Your task to perform on an android device: Go to Reddit.com Image 0: 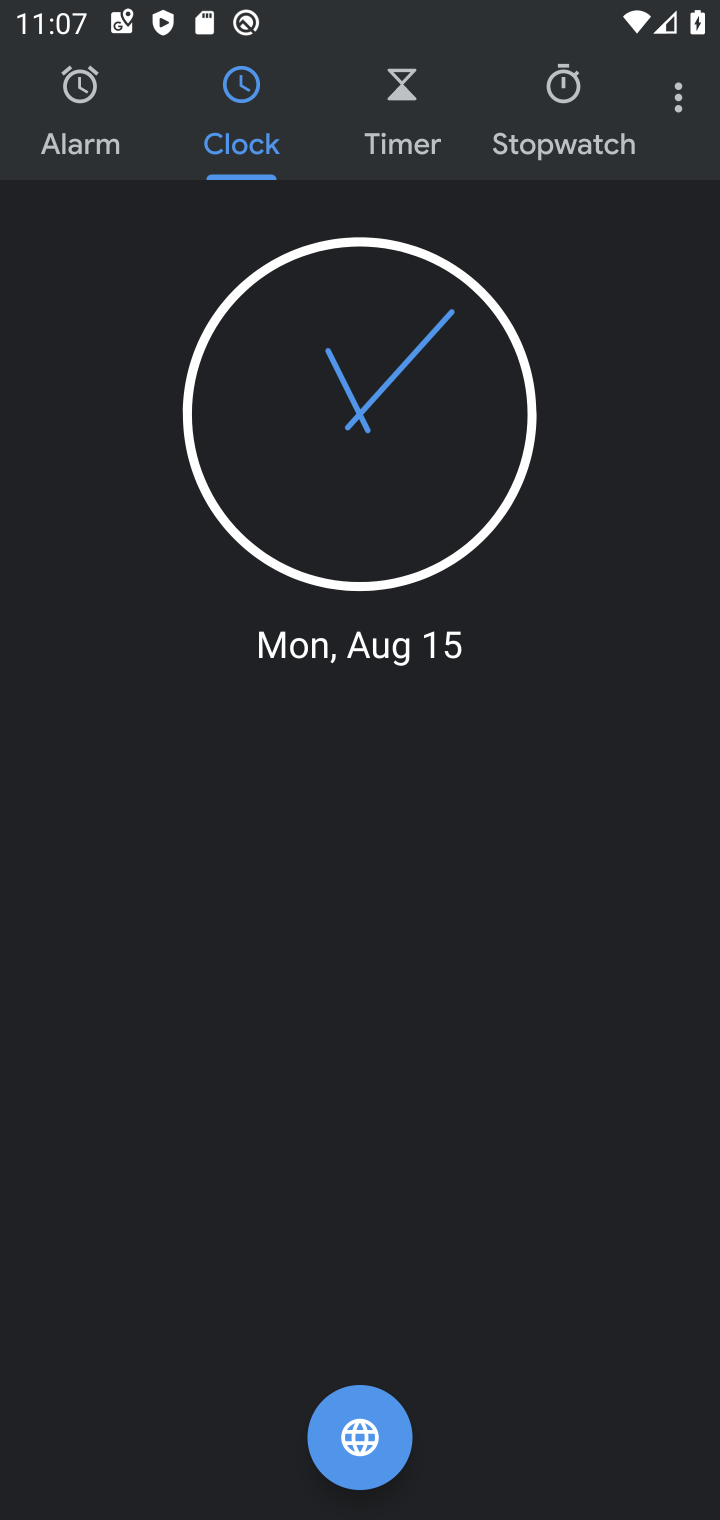
Step 0: press home button
Your task to perform on an android device: Go to Reddit.com Image 1: 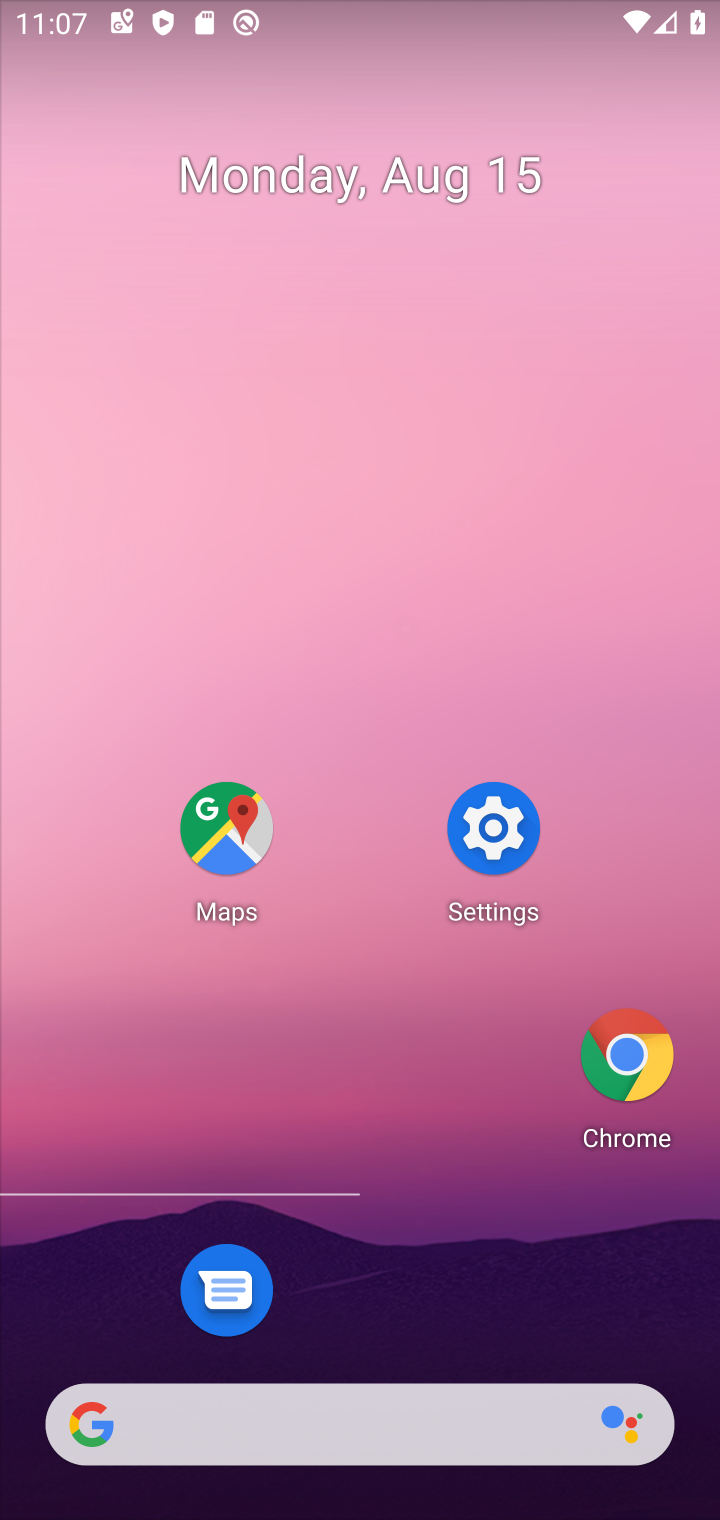
Step 1: click (632, 1062)
Your task to perform on an android device: Go to Reddit.com Image 2: 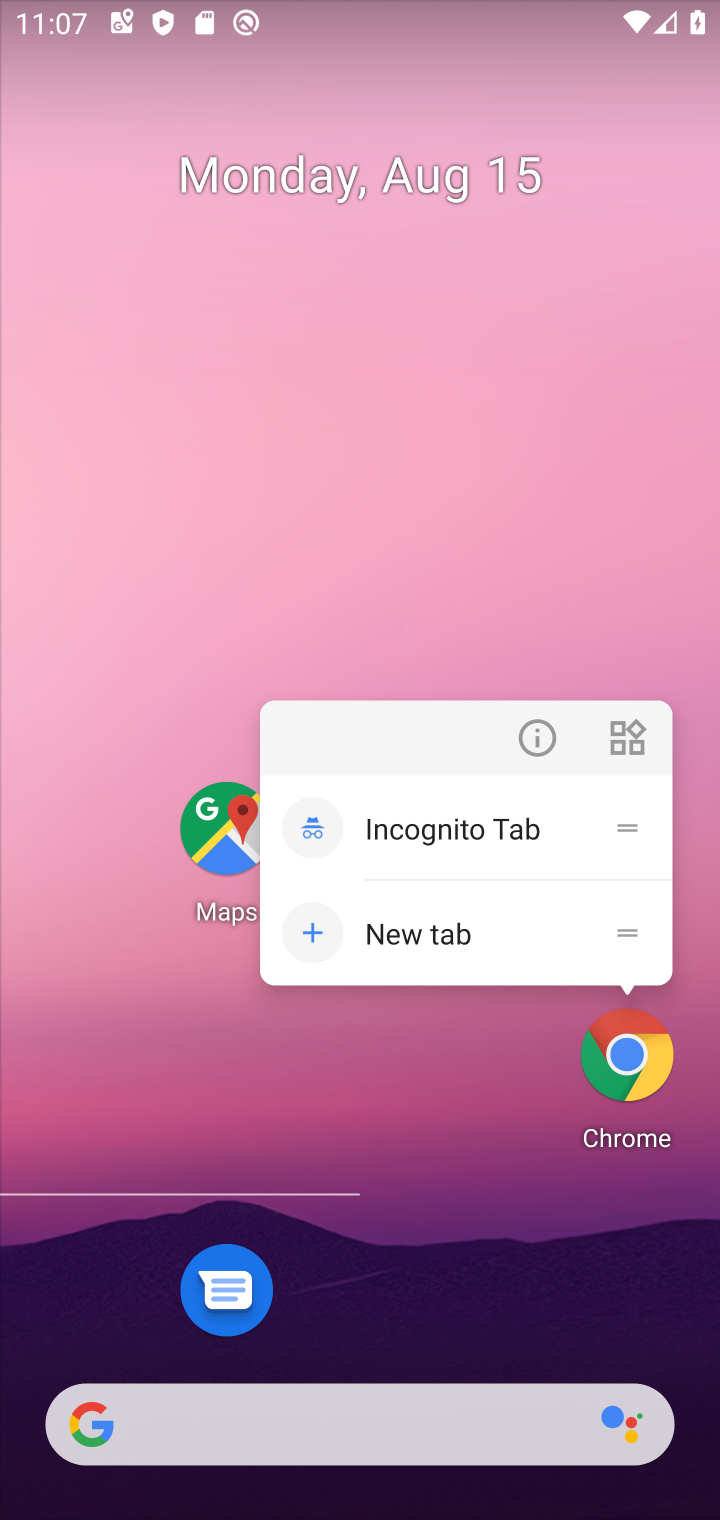
Step 2: click (634, 1077)
Your task to perform on an android device: Go to Reddit.com Image 3: 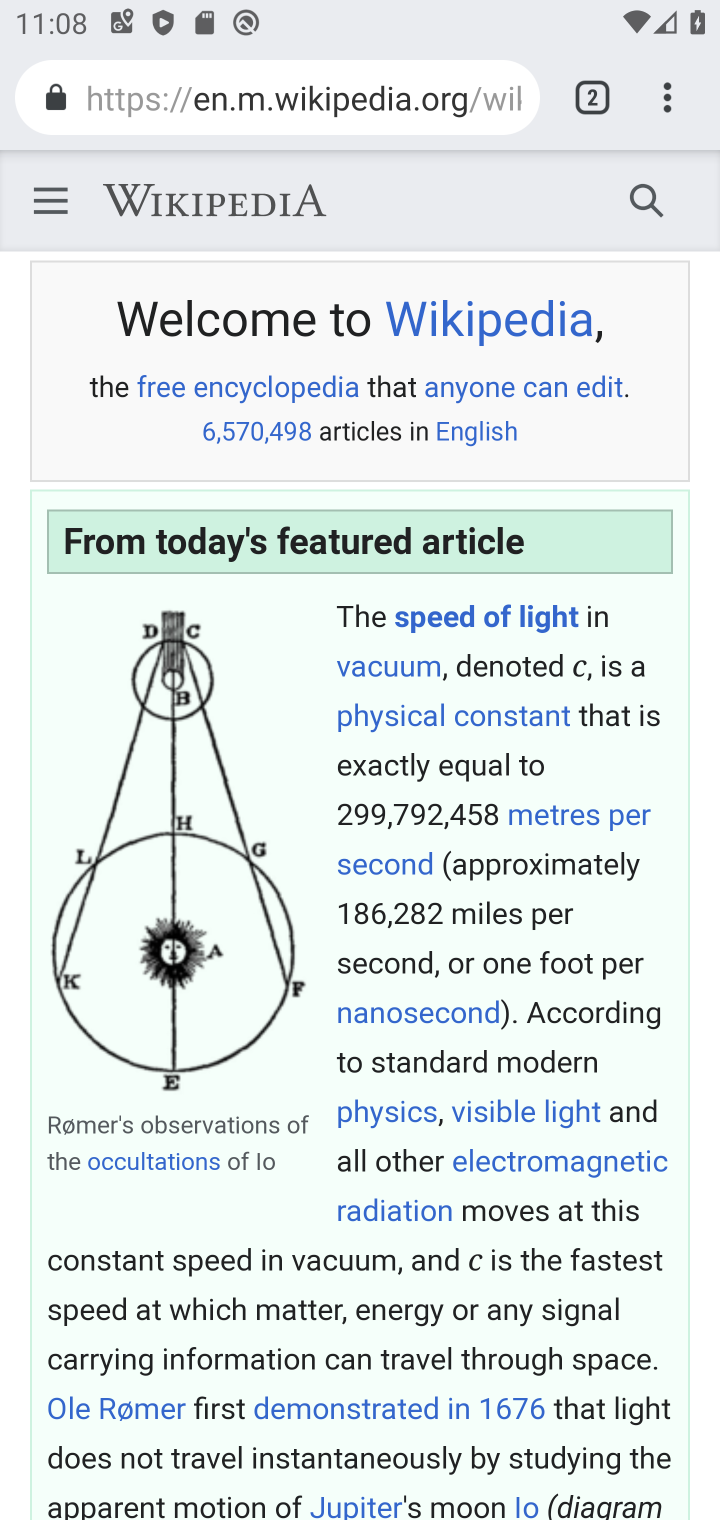
Step 3: drag from (657, 104) to (437, 202)
Your task to perform on an android device: Go to Reddit.com Image 4: 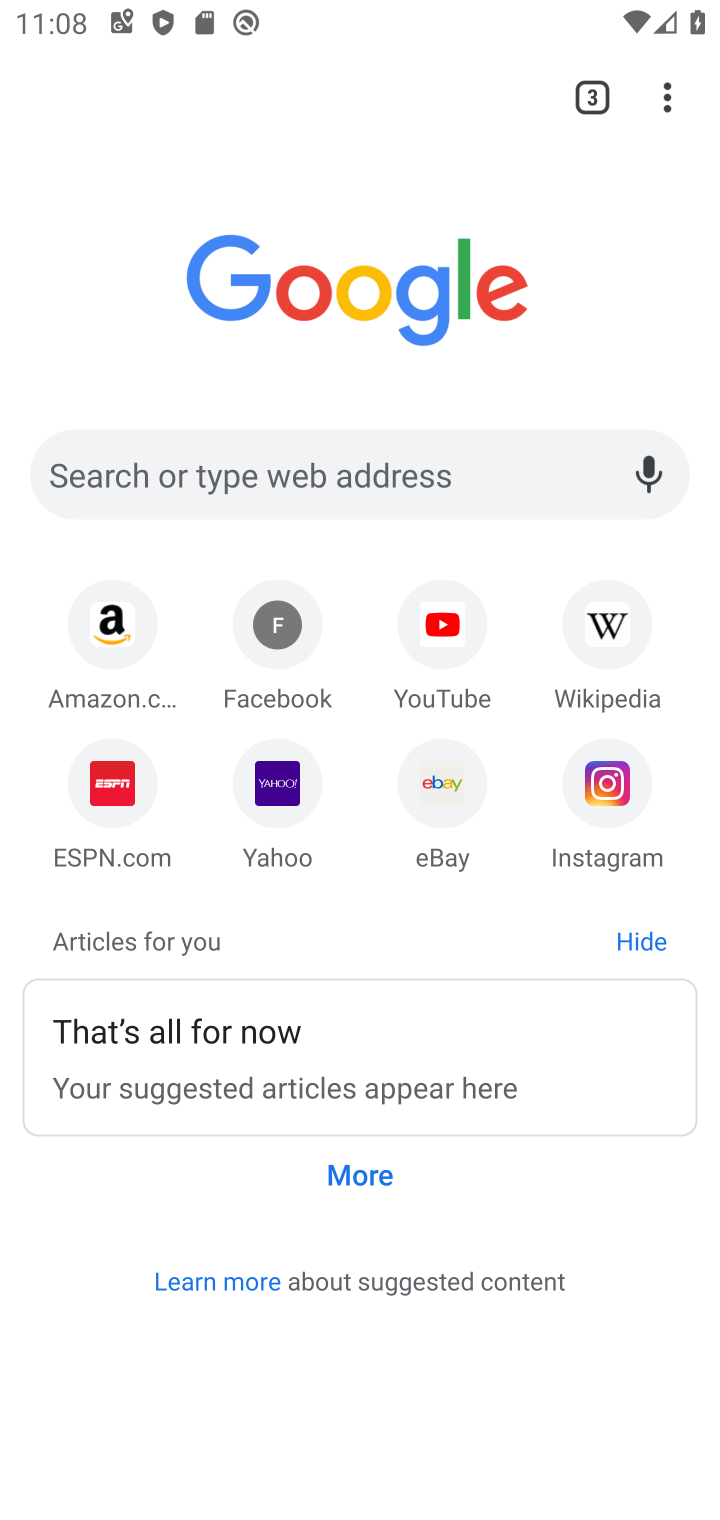
Step 4: click (222, 462)
Your task to perform on an android device: Go to Reddit.com Image 5: 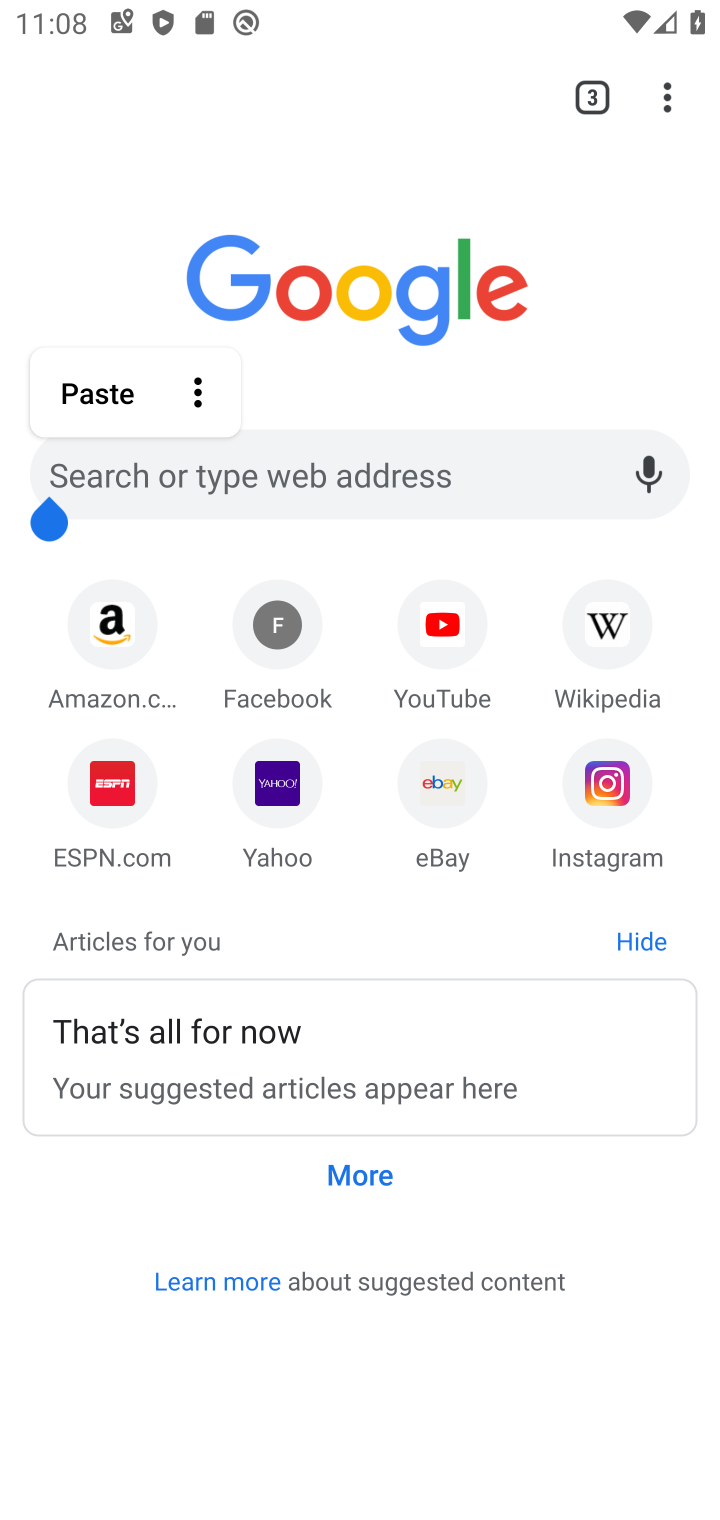
Step 5: click (179, 469)
Your task to perform on an android device: Go to Reddit.com Image 6: 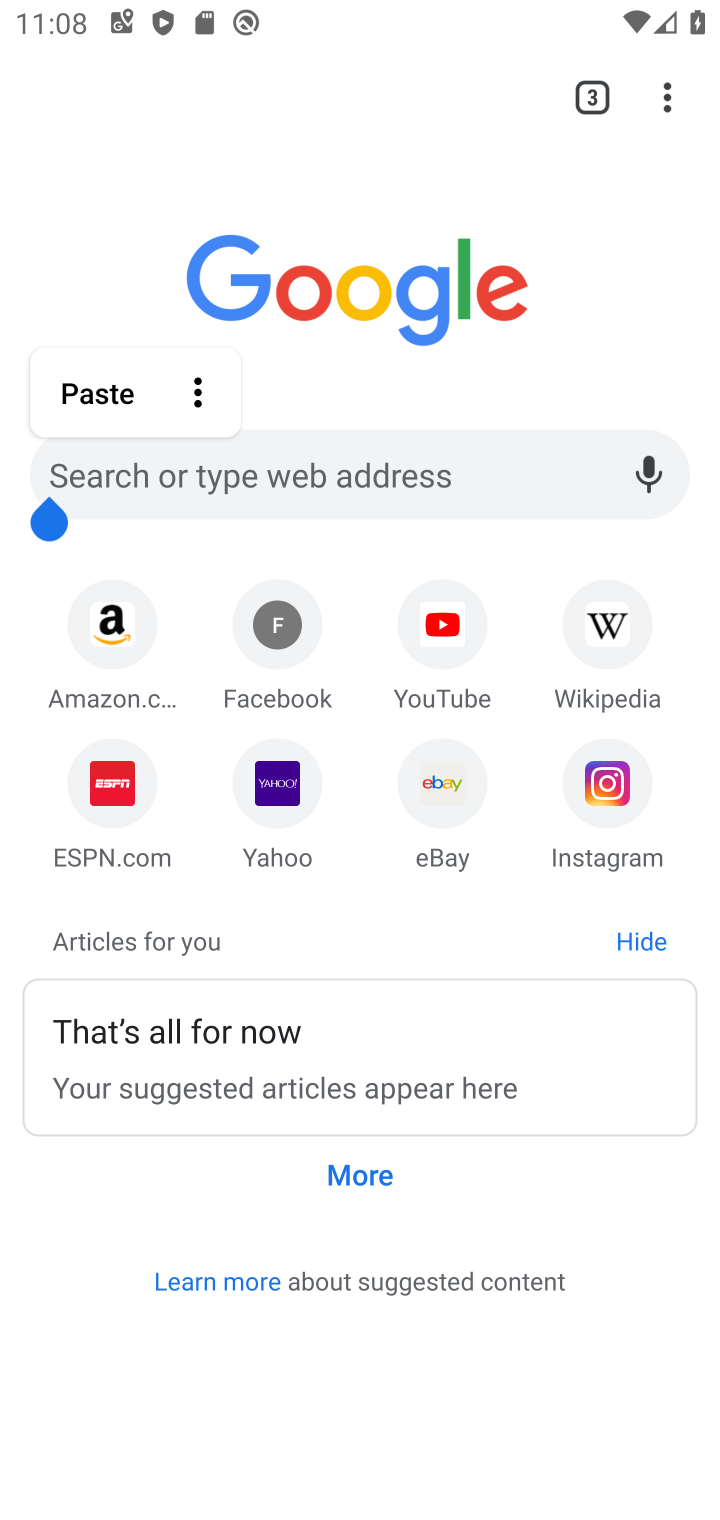
Step 6: click (499, 462)
Your task to perform on an android device: Go to Reddit.com Image 7: 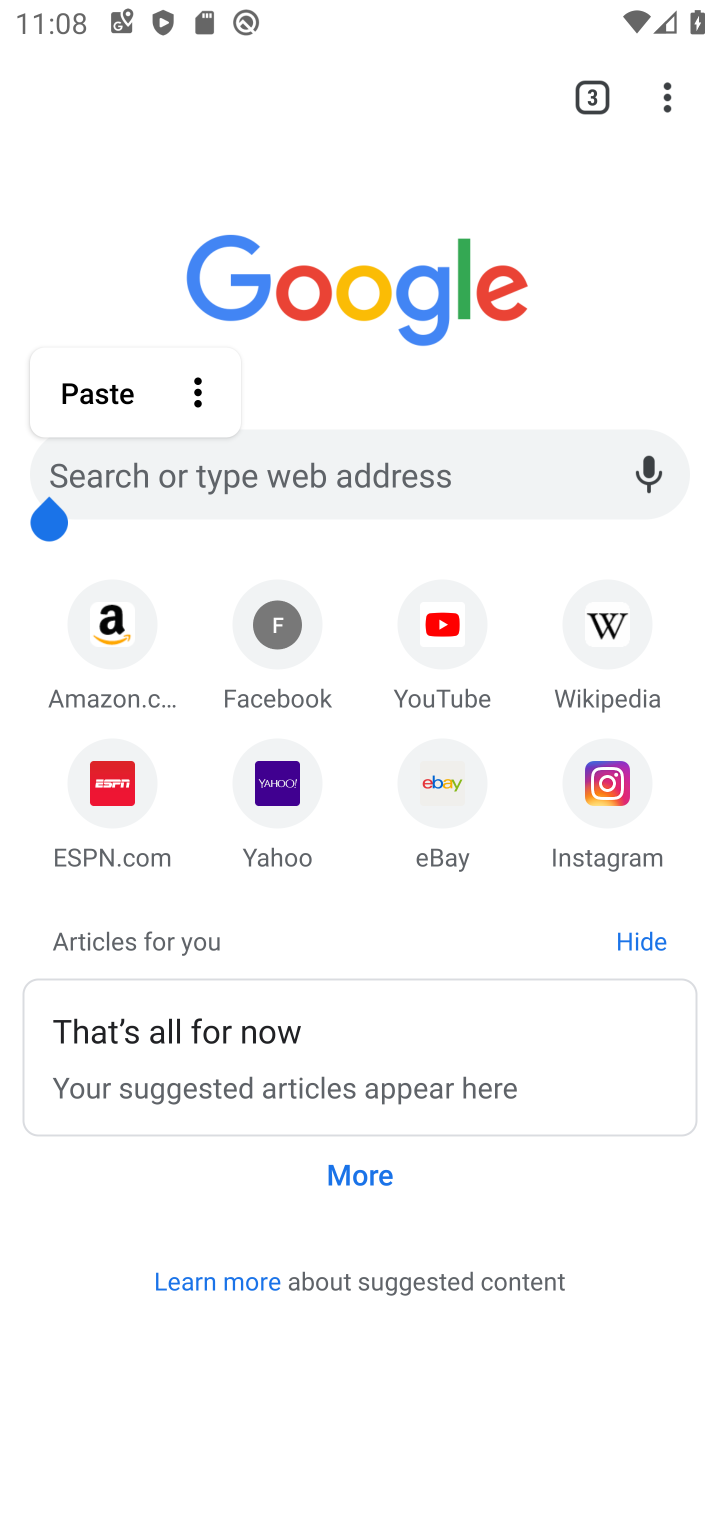
Step 7: click (104, 481)
Your task to perform on an android device: Go to Reddit.com Image 8: 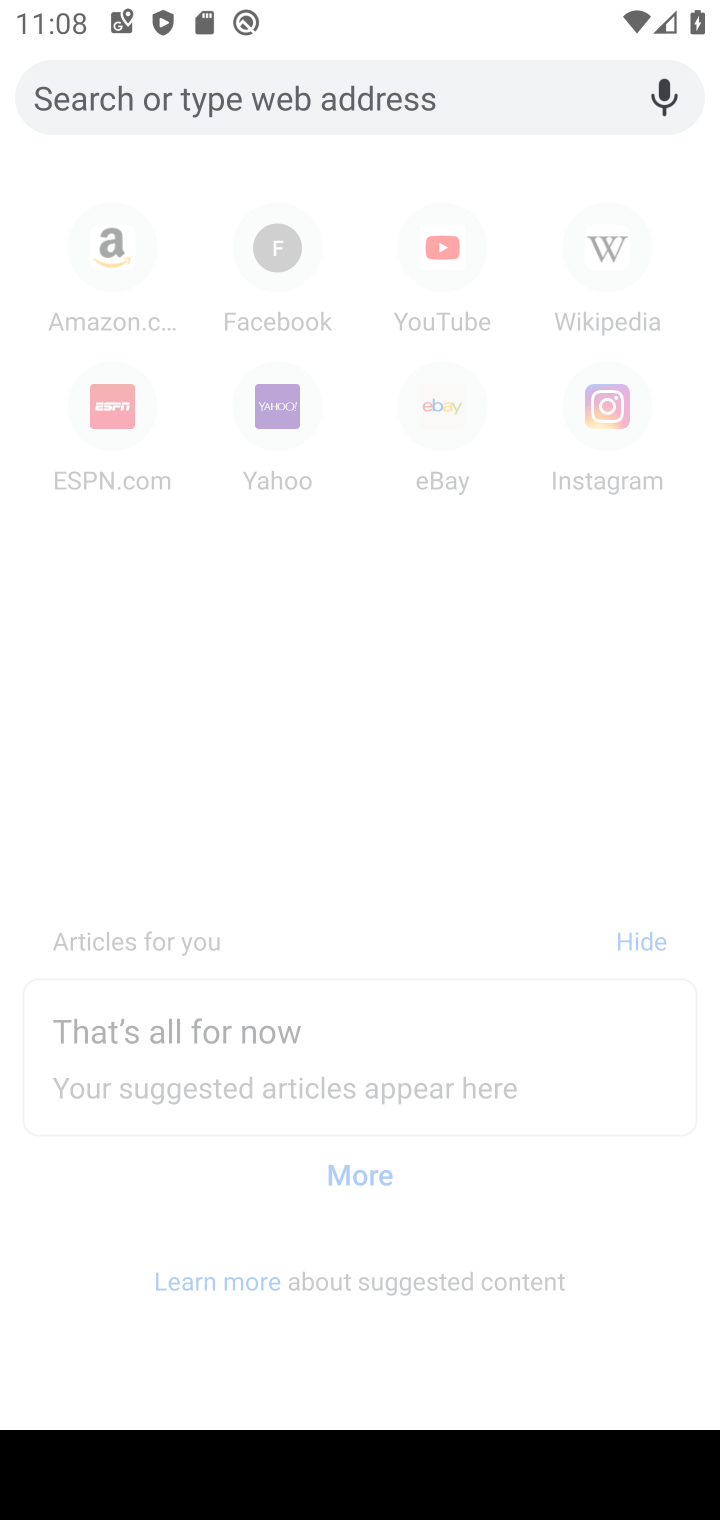
Step 8: type " Reddit.com"
Your task to perform on an android device: Go to Reddit.com Image 9: 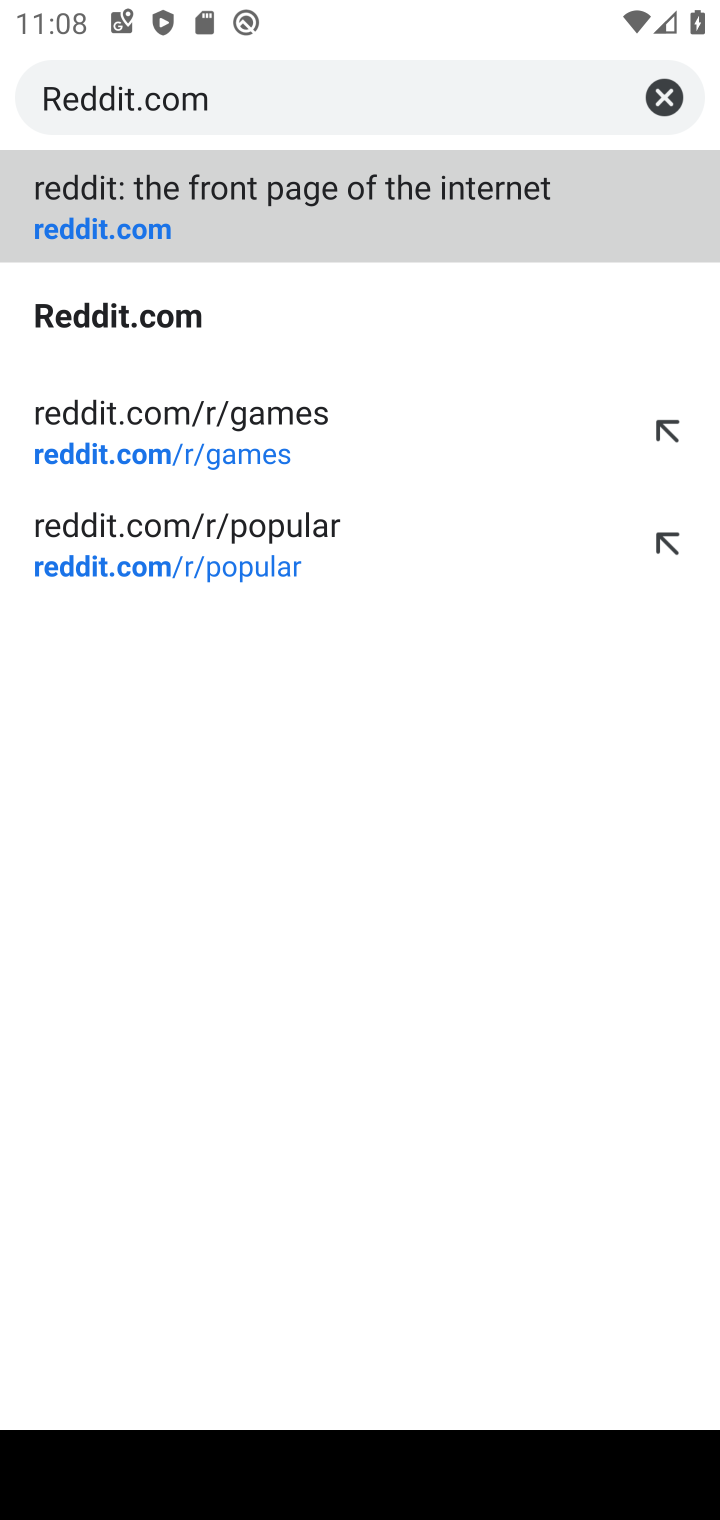
Step 9: click (281, 187)
Your task to perform on an android device: Go to Reddit.com Image 10: 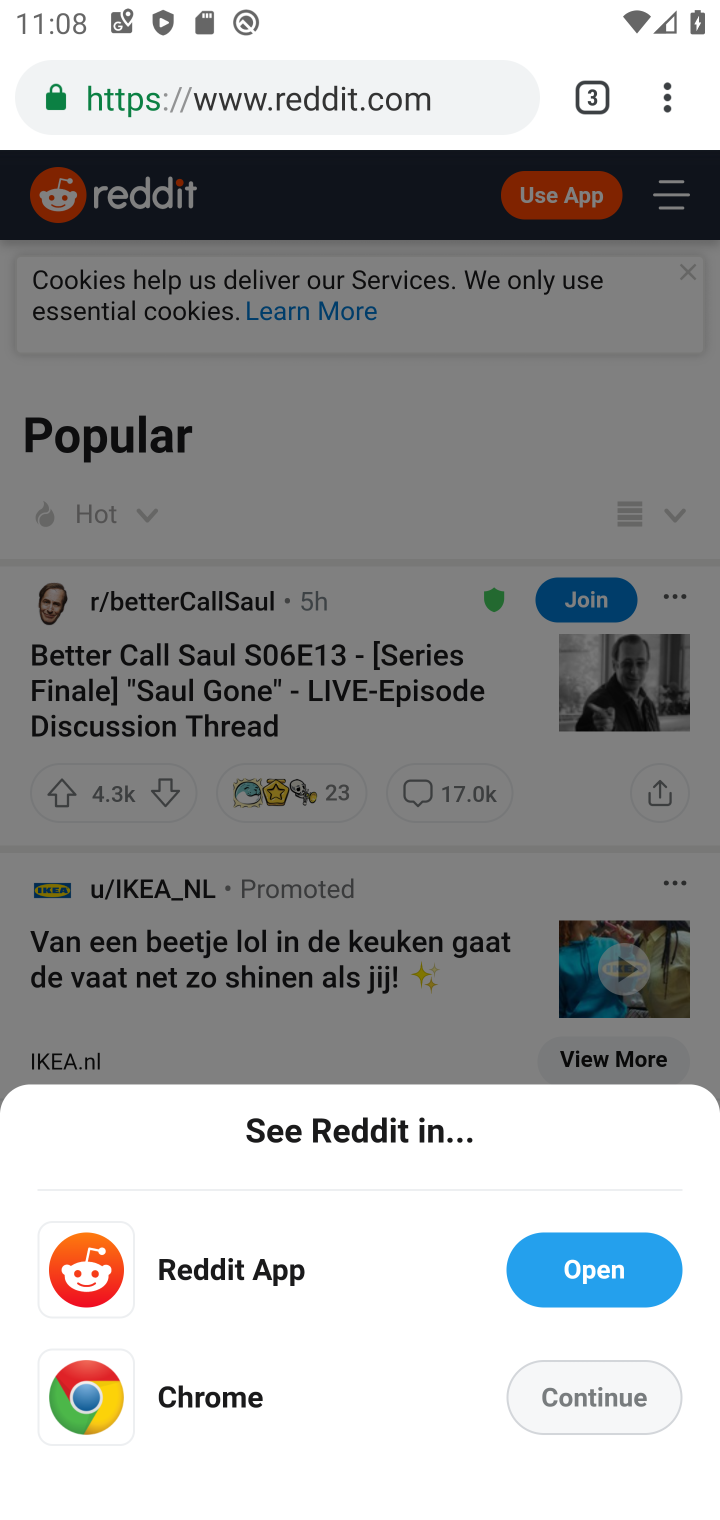
Step 10: task complete